Your task to perform on an android device: Open CNN.com Image 0: 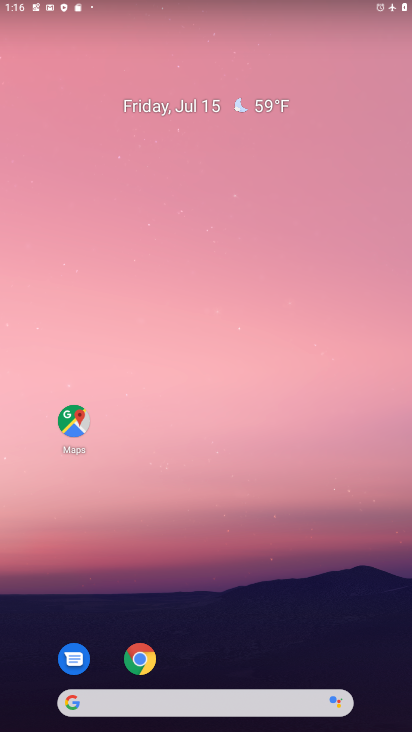
Step 0: drag from (253, 696) to (256, 245)
Your task to perform on an android device: Open CNN.com Image 1: 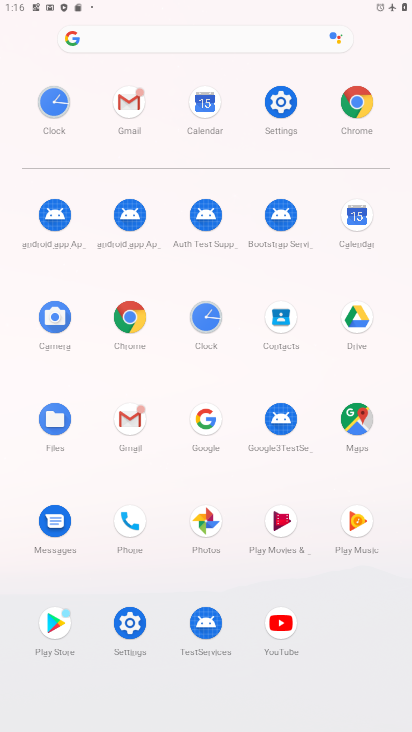
Step 1: click (358, 107)
Your task to perform on an android device: Open CNN.com Image 2: 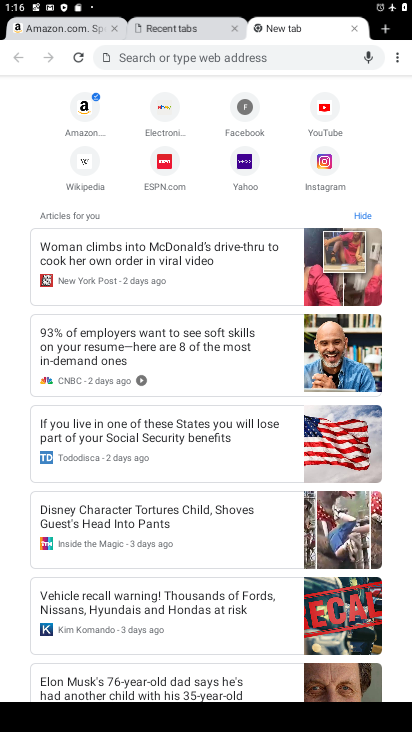
Step 2: type "CNN.com"
Your task to perform on an android device: Open CNN.com Image 3: 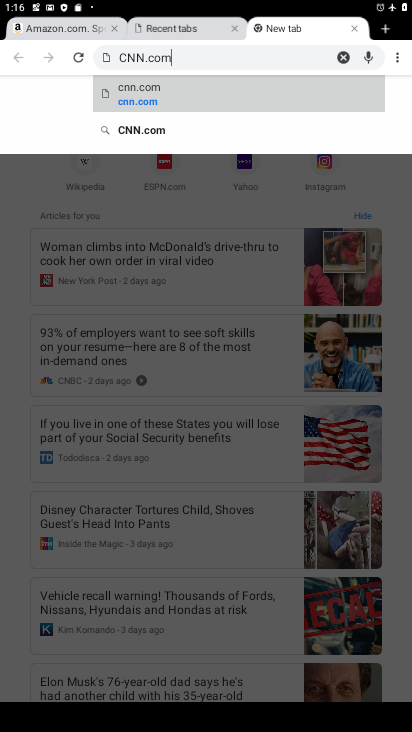
Step 3: click (146, 103)
Your task to perform on an android device: Open CNN.com Image 4: 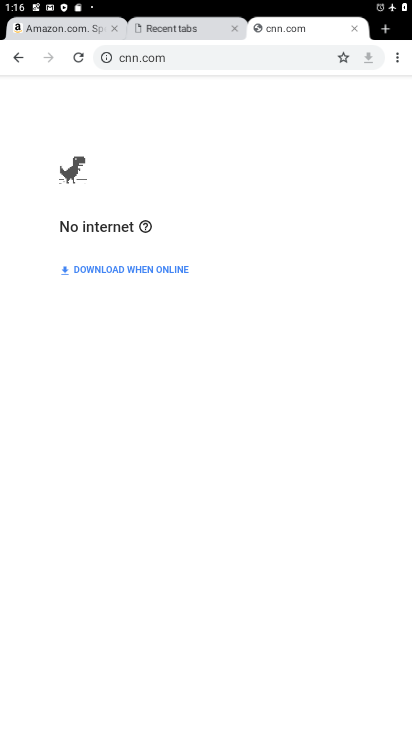
Step 4: task complete